Your task to perform on an android device: open a bookmark in the chrome app Image 0: 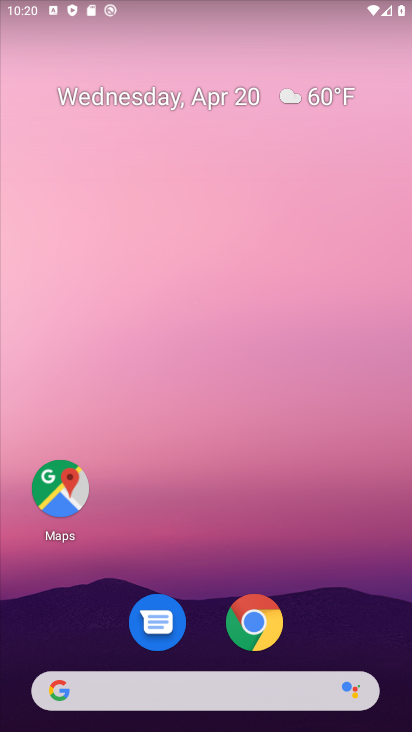
Step 0: click (49, 491)
Your task to perform on an android device: open a bookmark in the chrome app Image 1: 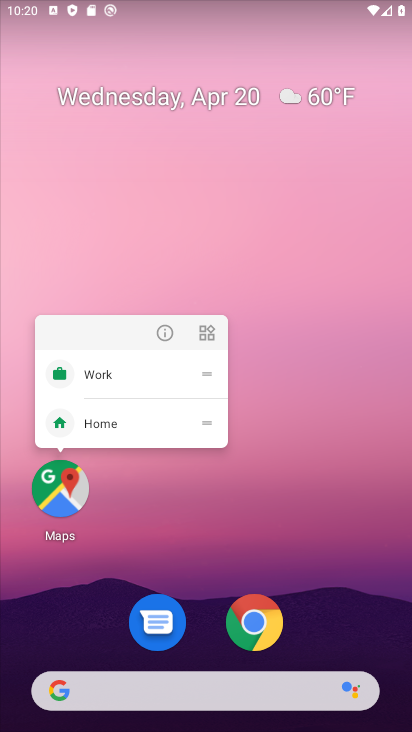
Step 1: click (57, 484)
Your task to perform on an android device: open a bookmark in the chrome app Image 2: 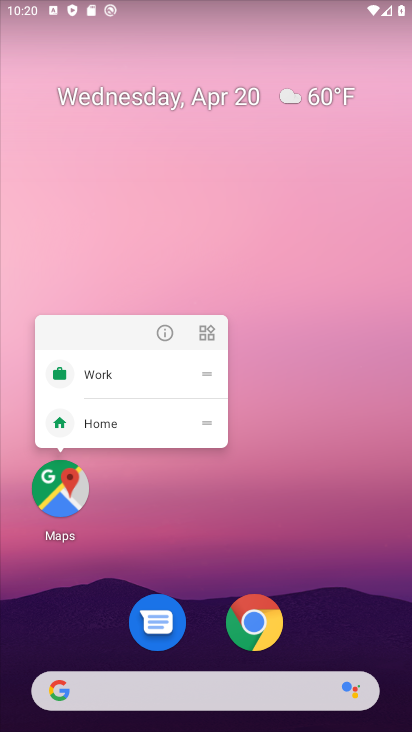
Step 2: click (57, 484)
Your task to perform on an android device: open a bookmark in the chrome app Image 3: 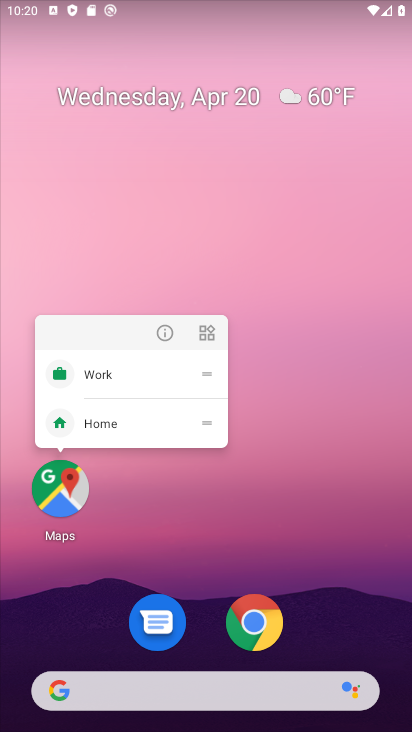
Step 3: click (57, 483)
Your task to perform on an android device: open a bookmark in the chrome app Image 4: 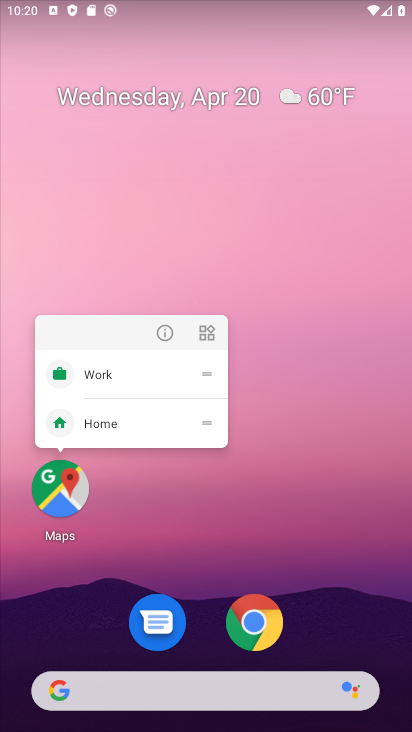
Step 4: click (56, 481)
Your task to perform on an android device: open a bookmark in the chrome app Image 5: 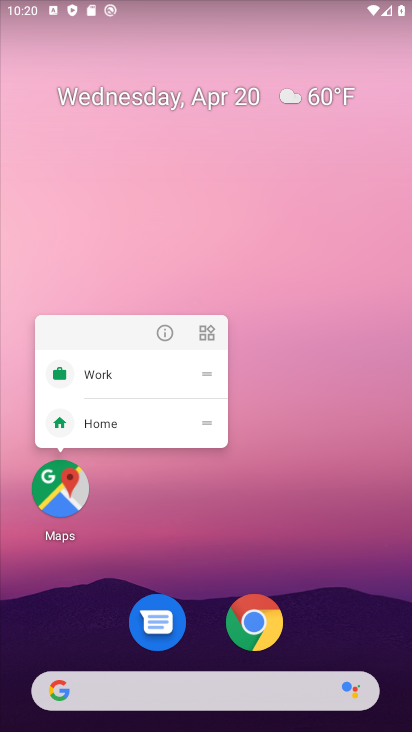
Step 5: click (56, 481)
Your task to perform on an android device: open a bookmark in the chrome app Image 6: 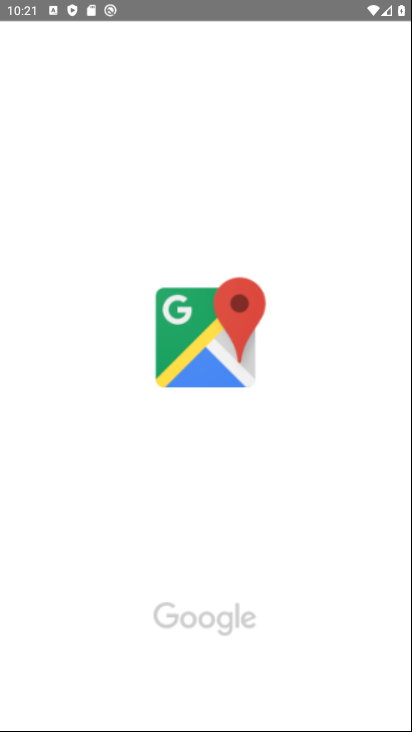
Step 6: drag from (242, 492) to (292, 148)
Your task to perform on an android device: open a bookmark in the chrome app Image 7: 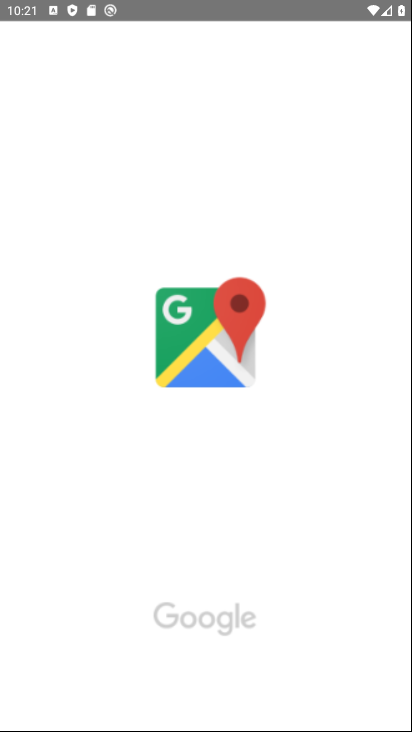
Step 7: press home button
Your task to perform on an android device: open a bookmark in the chrome app Image 8: 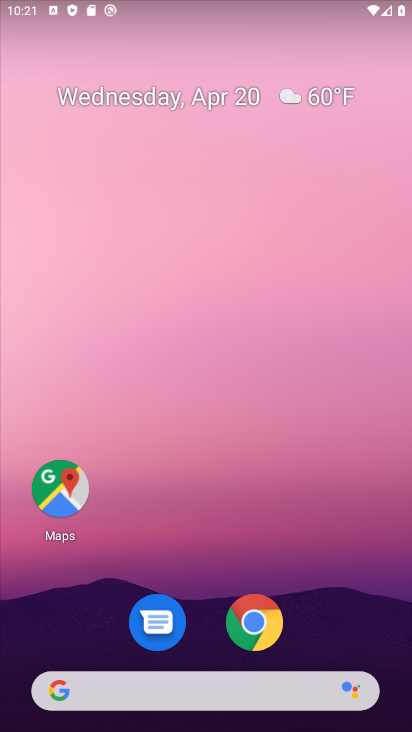
Step 8: click (252, 624)
Your task to perform on an android device: open a bookmark in the chrome app Image 9: 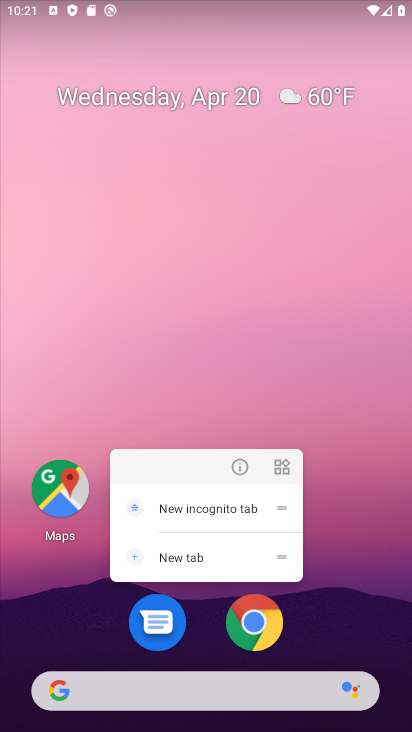
Step 9: click (252, 623)
Your task to perform on an android device: open a bookmark in the chrome app Image 10: 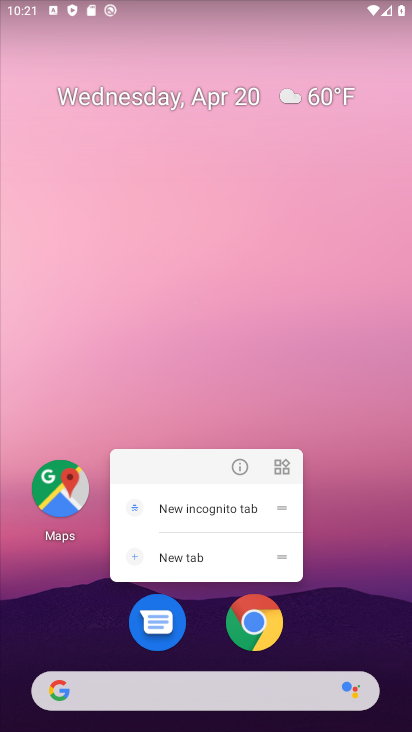
Step 10: click (249, 615)
Your task to perform on an android device: open a bookmark in the chrome app Image 11: 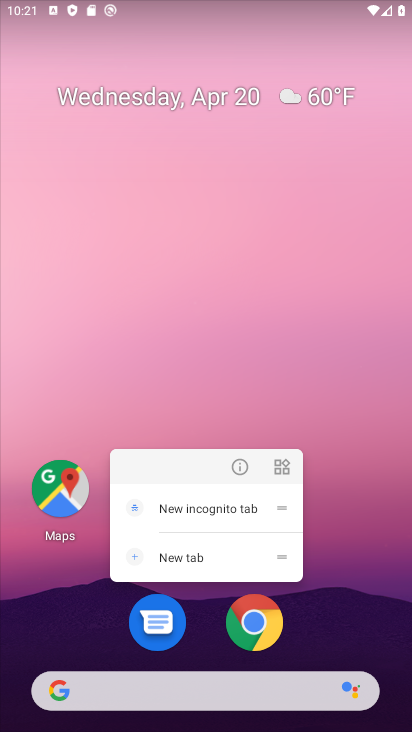
Step 11: click (246, 609)
Your task to perform on an android device: open a bookmark in the chrome app Image 12: 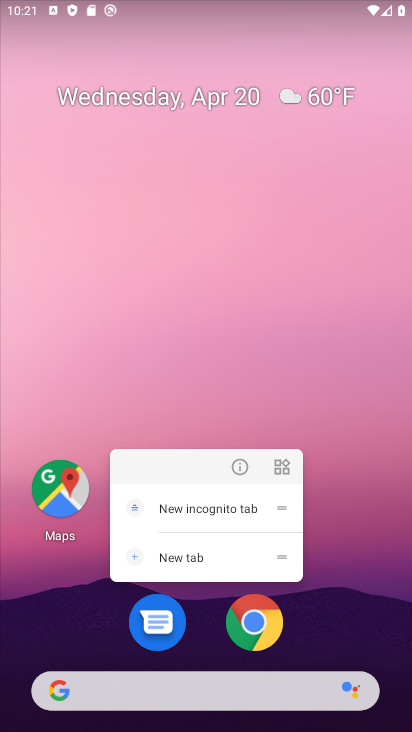
Step 12: click (246, 608)
Your task to perform on an android device: open a bookmark in the chrome app Image 13: 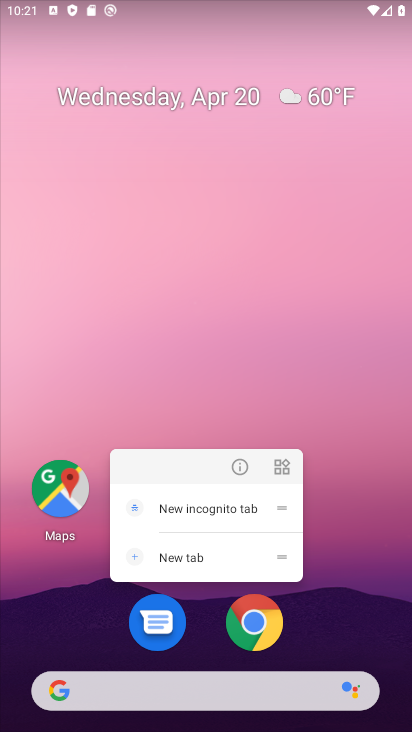
Step 13: click (250, 620)
Your task to perform on an android device: open a bookmark in the chrome app Image 14: 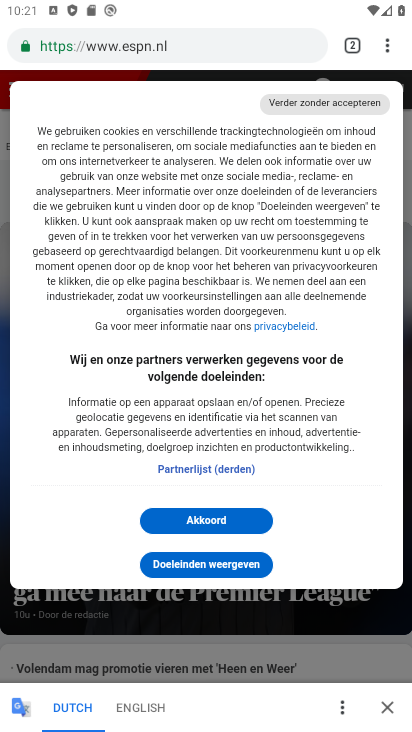
Step 14: drag from (389, 40) to (226, 192)
Your task to perform on an android device: open a bookmark in the chrome app Image 15: 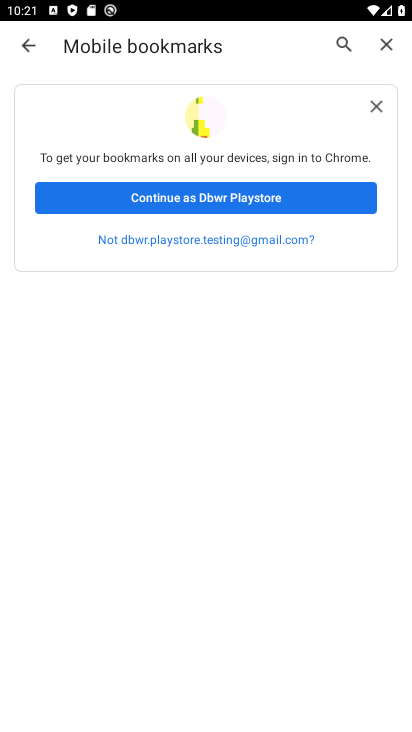
Step 15: click (226, 191)
Your task to perform on an android device: open a bookmark in the chrome app Image 16: 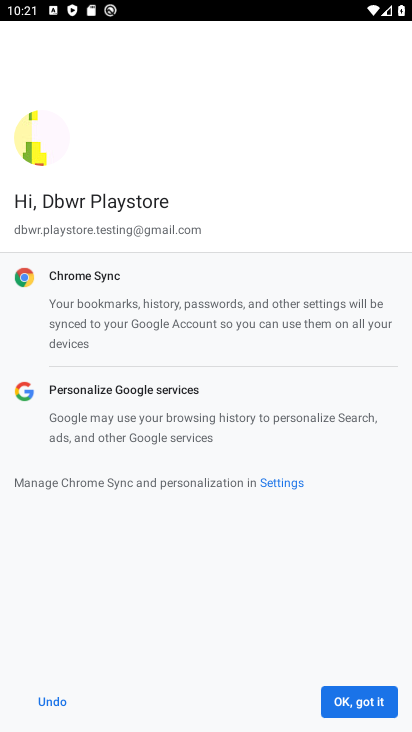
Step 16: click (361, 691)
Your task to perform on an android device: open a bookmark in the chrome app Image 17: 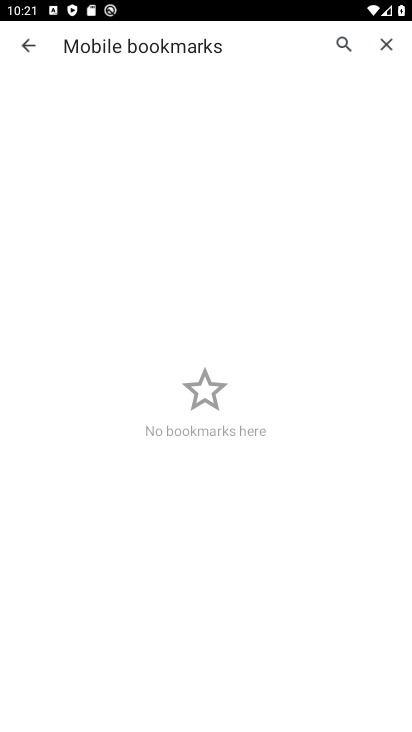
Step 17: task complete